Your task to perform on an android device: open a bookmark in the chrome app Image 0: 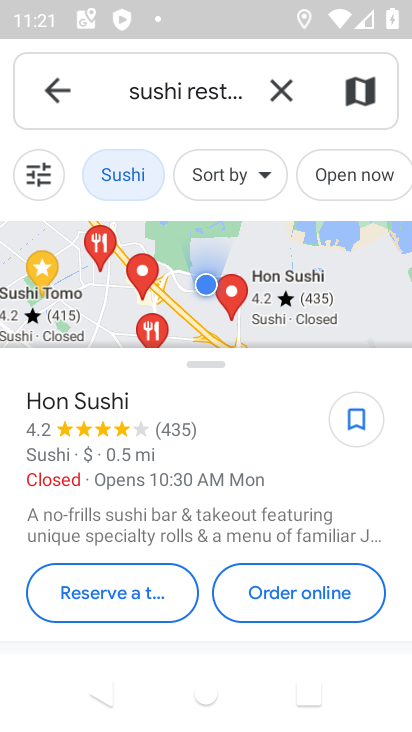
Step 0: press home button
Your task to perform on an android device: open a bookmark in the chrome app Image 1: 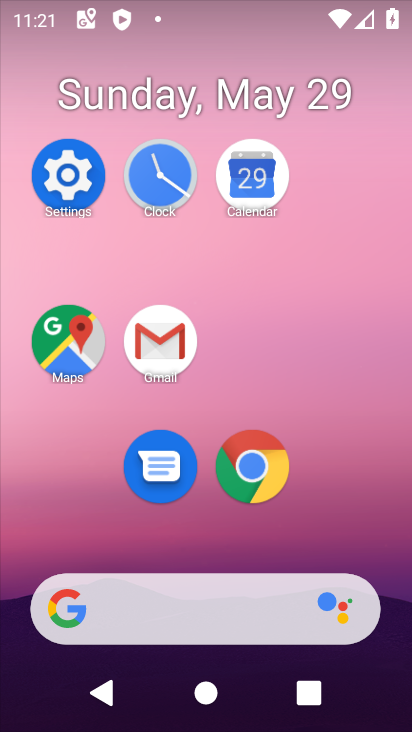
Step 1: click (261, 451)
Your task to perform on an android device: open a bookmark in the chrome app Image 2: 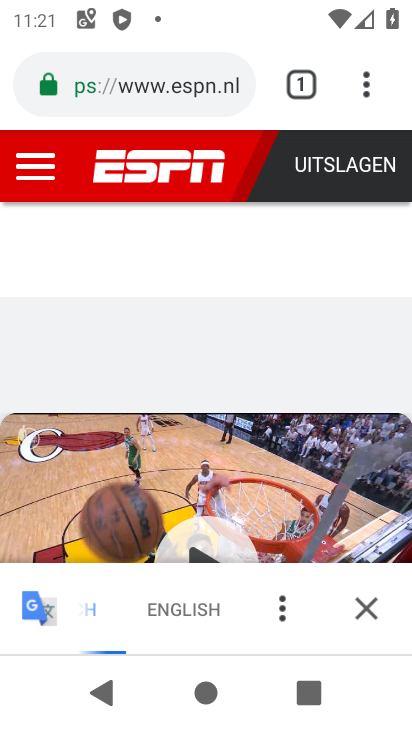
Step 2: click (384, 81)
Your task to perform on an android device: open a bookmark in the chrome app Image 3: 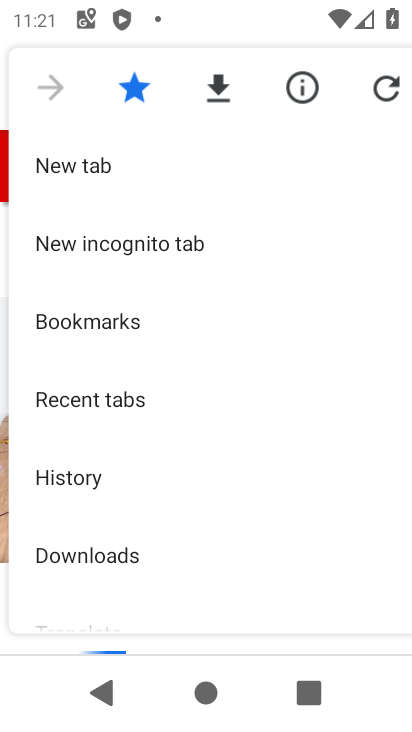
Step 3: click (145, 308)
Your task to perform on an android device: open a bookmark in the chrome app Image 4: 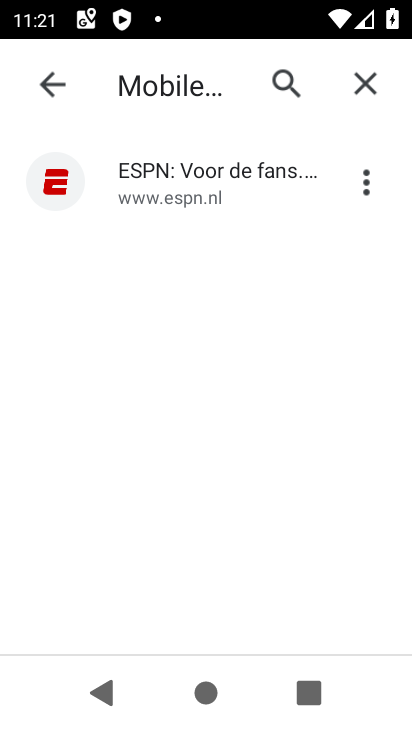
Step 4: task complete